Your task to perform on an android device: Is it going to rain this weekend? Image 0: 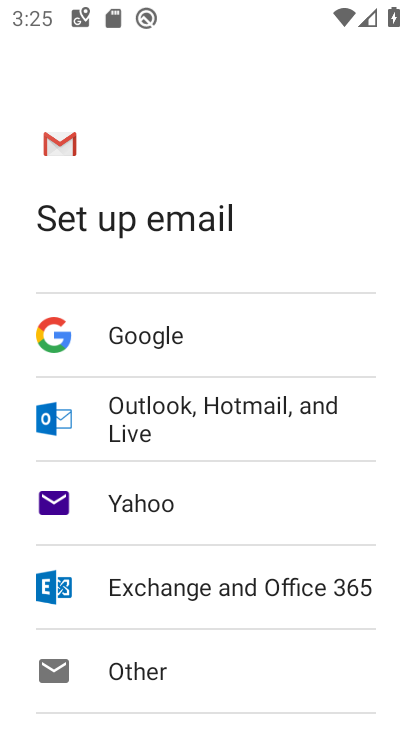
Step 0: press back button
Your task to perform on an android device: Is it going to rain this weekend? Image 1: 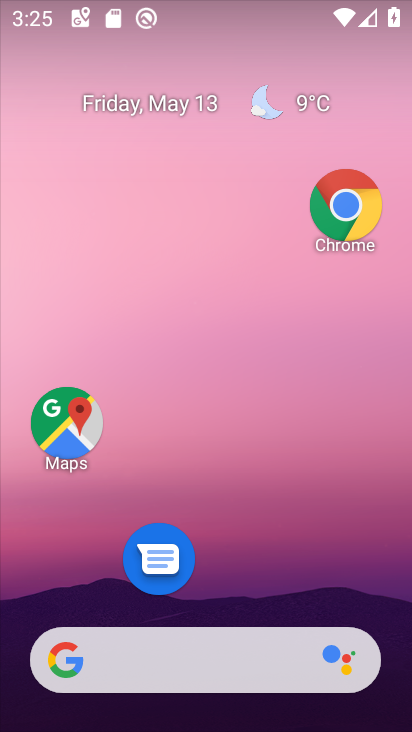
Step 1: click (165, 666)
Your task to perform on an android device: Is it going to rain this weekend? Image 2: 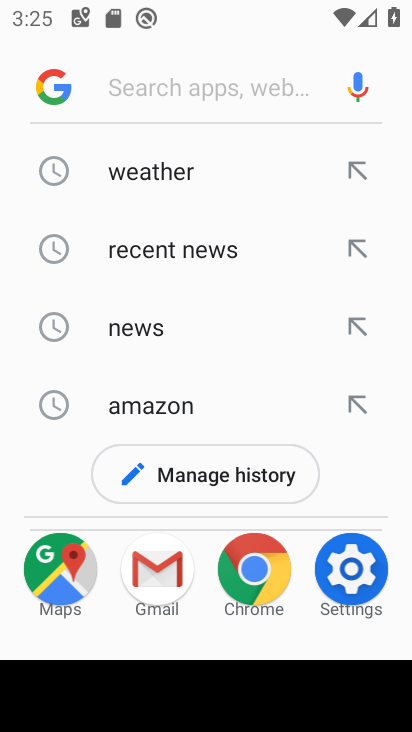
Step 2: click (197, 188)
Your task to perform on an android device: Is it going to rain this weekend? Image 3: 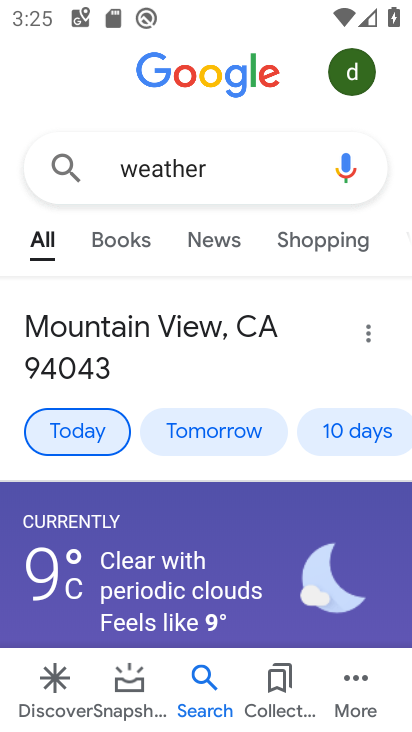
Step 3: click (337, 424)
Your task to perform on an android device: Is it going to rain this weekend? Image 4: 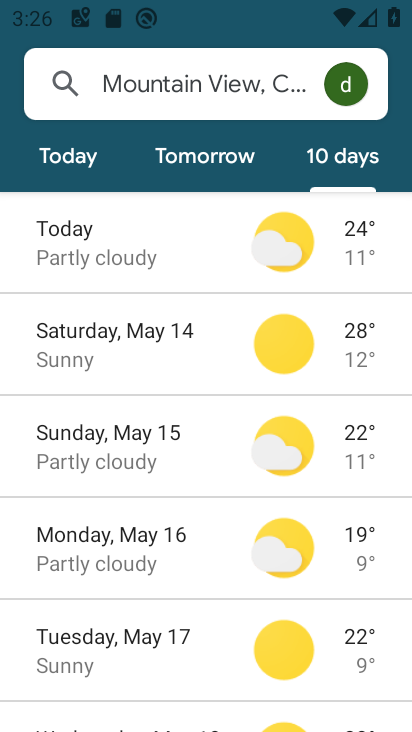
Step 4: task complete